Your task to perform on an android device: make emails show in primary in the gmail app Image 0: 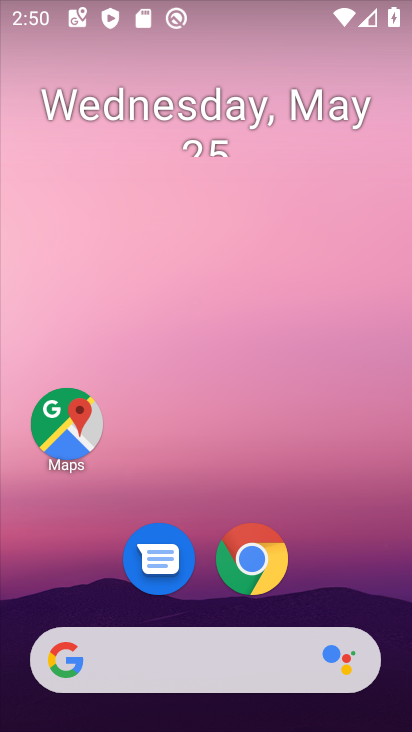
Step 0: drag from (208, 603) to (205, 124)
Your task to perform on an android device: make emails show in primary in the gmail app Image 1: 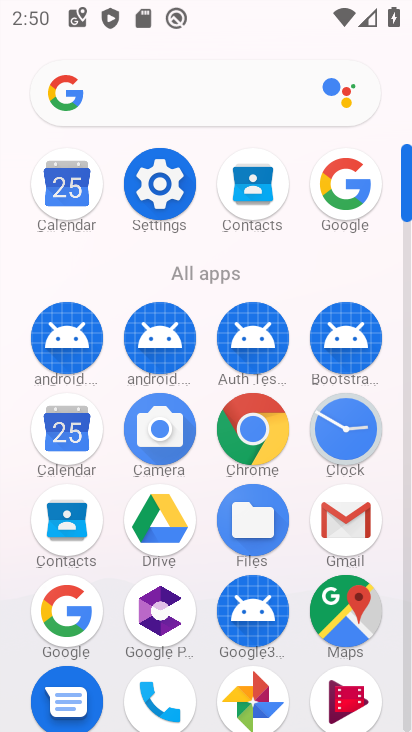
Step 1: click (337, 516)
Your task to perform on an android device: make emails show in primary in the gmail app Image 2: 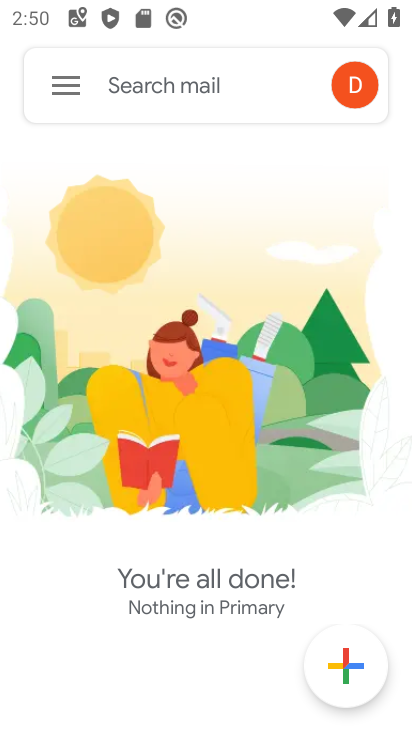
Step 2: click (60, 78)
Your task to perform on an android device: make emails show in primary in the gmail app Image 3: 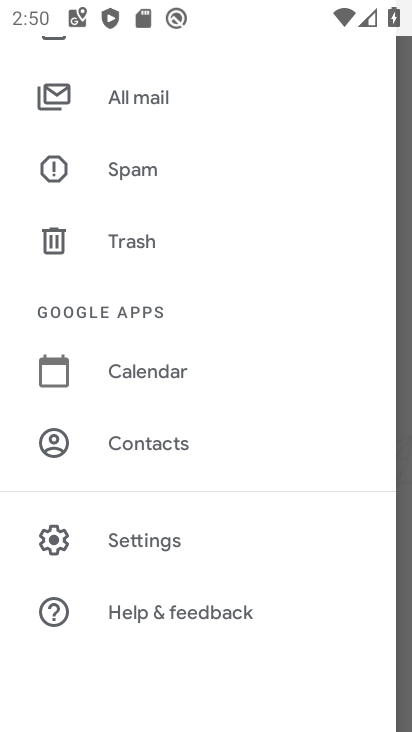
Step 3: click (192, 534)
Your task to perform on an android device: make emails show in primary in the gmail app Image 4: 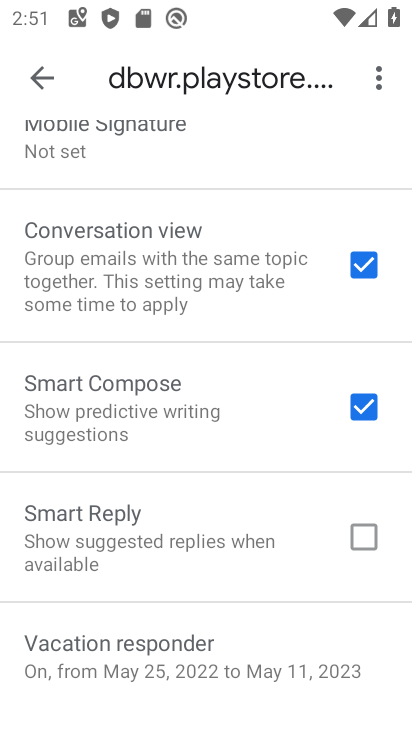
Step 4: drag from (146, 159) to (180, 694)
Your task to perform on an android device: make emails show in primary in the gmail app Image 5: 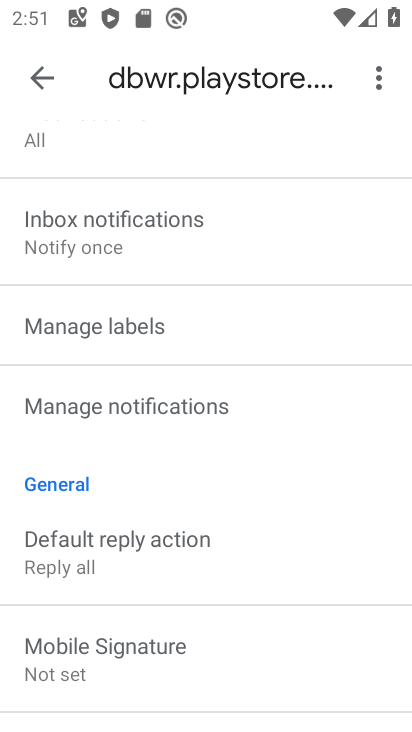
Step 5: drag from (172, 223) to (199, 728)
Your task to perform on an android device: make emails show in primary in the gmail app Image 6: 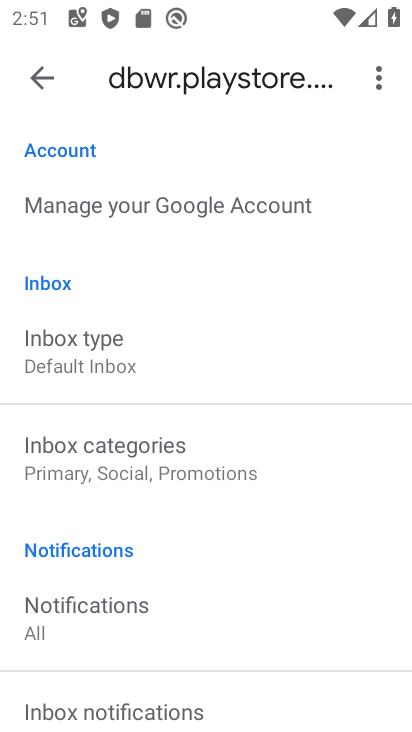
Step 6: click (147, 355)
Your task to perform on an android device: make emails show in primary in the gmail app Image 7: 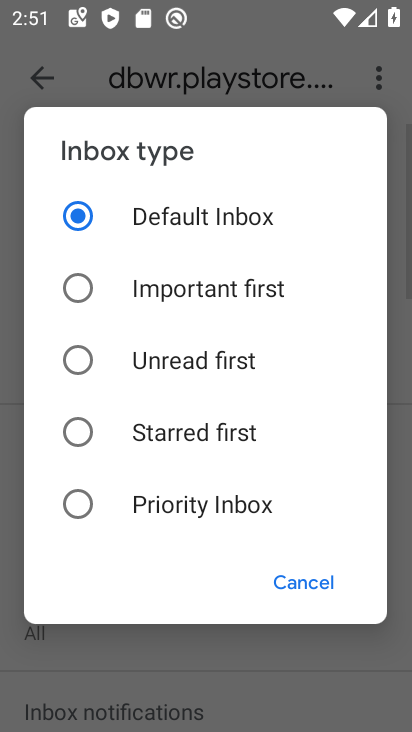
Step 7: click (86, 213)
Your task to perform on an android device: make emails show in primary in the gmail app Image 8: 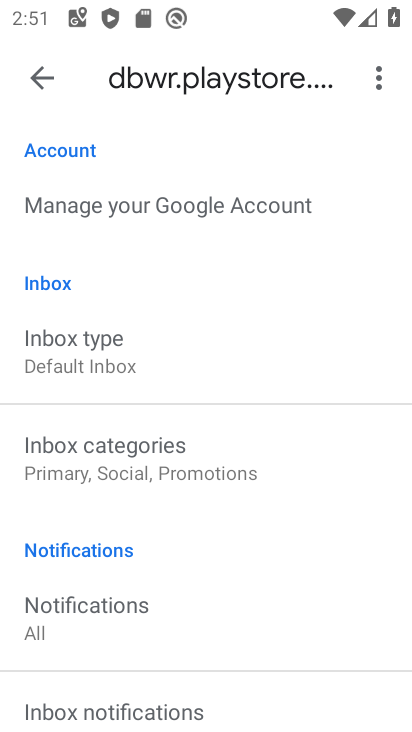
Step 8: task complete